Your task to perform on an android device: Open Chrome and go to settings Image 0: 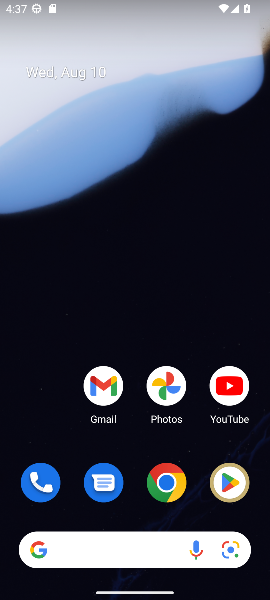
Step 0: click (166, 482)
Your task to perform on an android device: Open Chrome and go to settings Image 1: 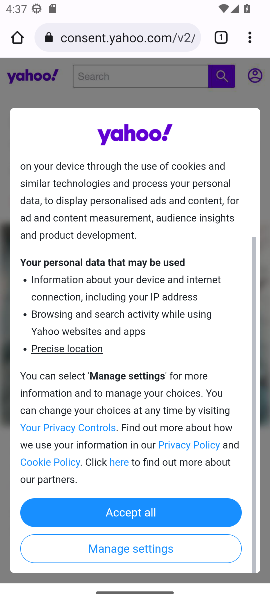
Step 1: click (251, 37)
Your task to perform on an android device: Open Chrome and go to settings Image 2: 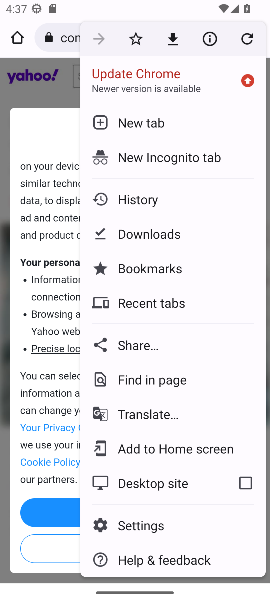
Step 2: click (148, 524)
Your task to perform on an android device: Open Chrome and go to settings Image 3: 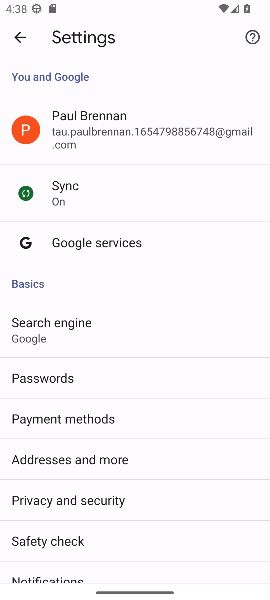
Step 3: task complete